Your task to perform on an android device: uninstall "Google Translate" Image 0: 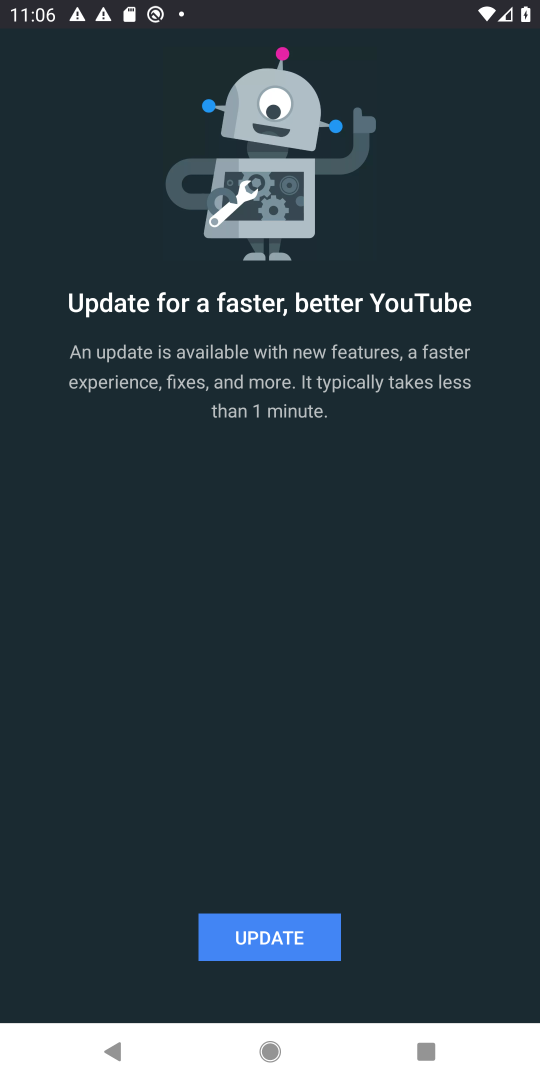
Step 0: press home button
Your task to perform on an android device: uninstall "Google Translate" Image 1: 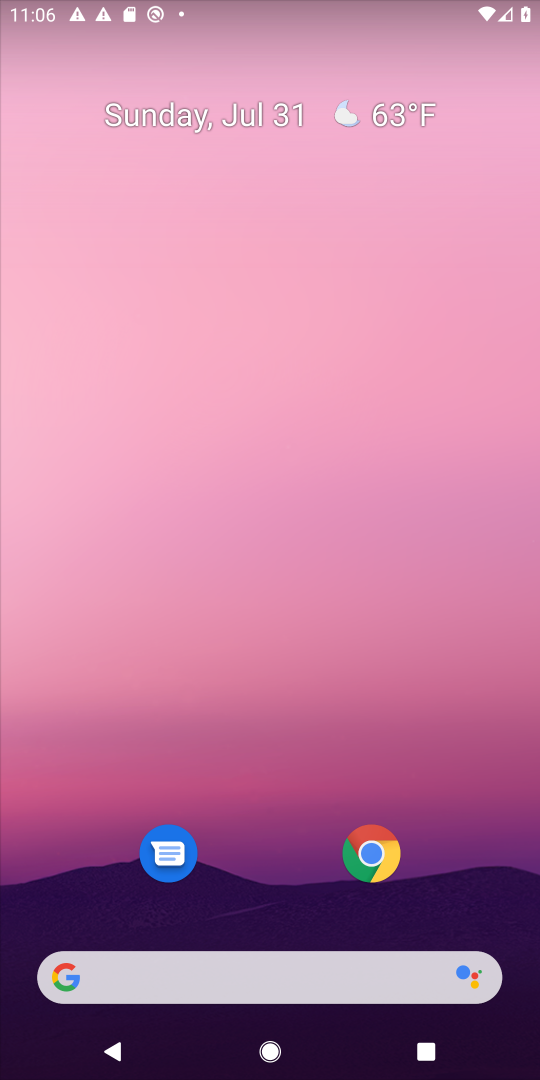
Step 1: drag from (293, 962) to (269, 110)
Your task to perform on an android device: uninstall "Google Translate" Image 2: 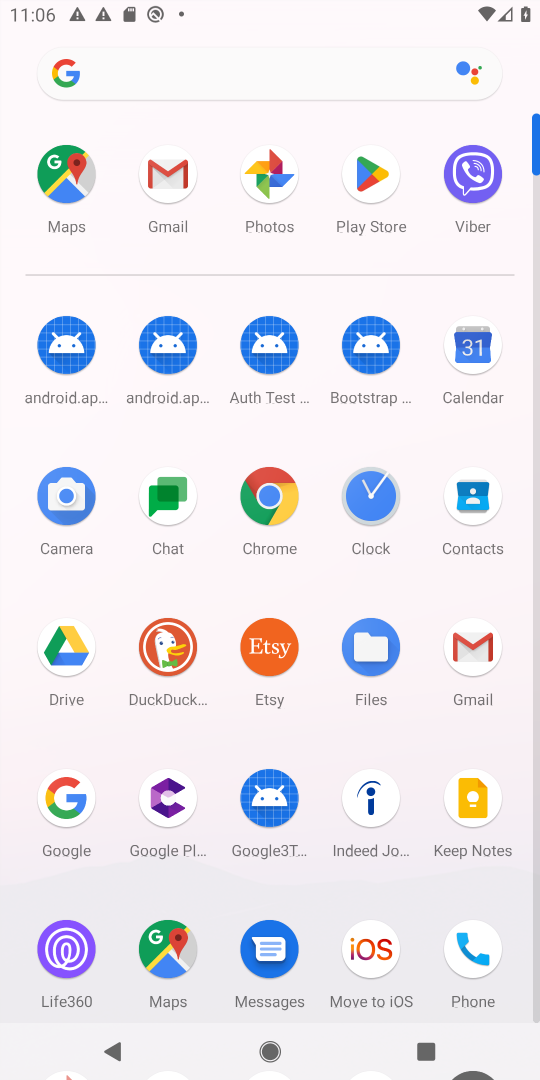
Step 2: click (370, 176)
Your task to perform on an android device: uninstall "Google Translate" Image 3: 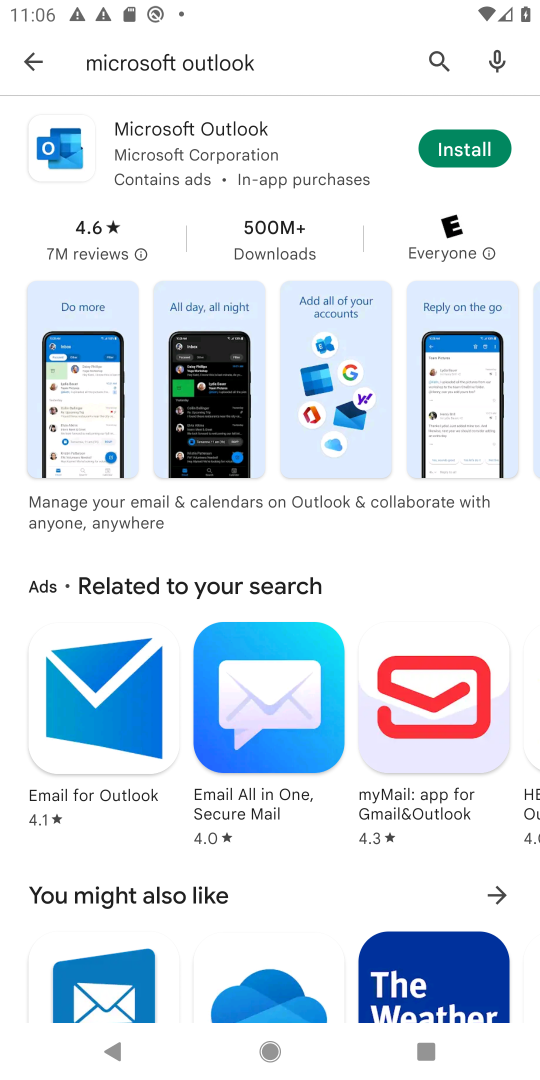
Step 3: click (440, 50)
Your task to perform on an android device: uninstall "Google Translate" Image 4: 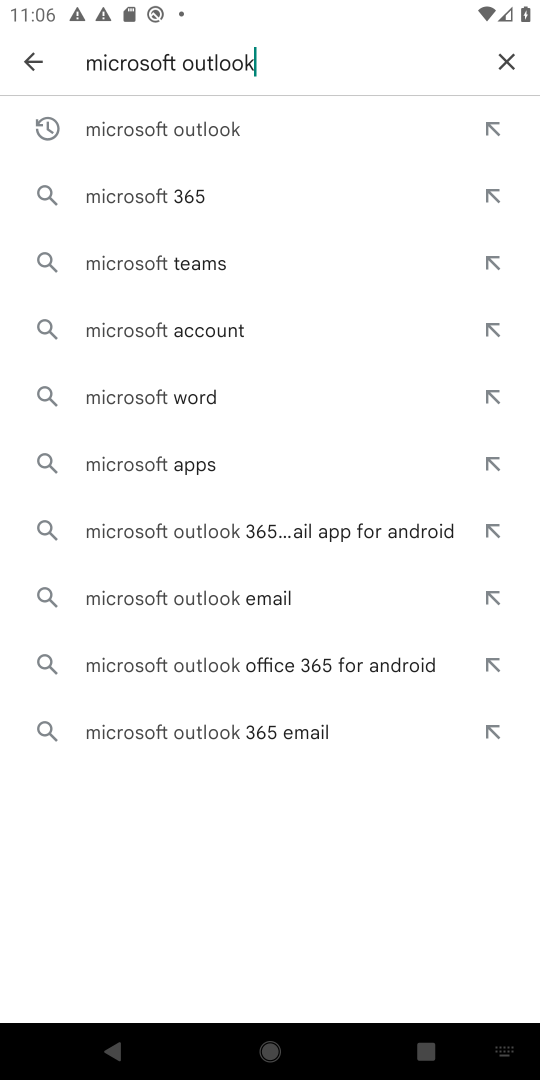
Step 4: click (517, 57)
Your task to perform on an android device: uninstall "Google Translate" Image 5: 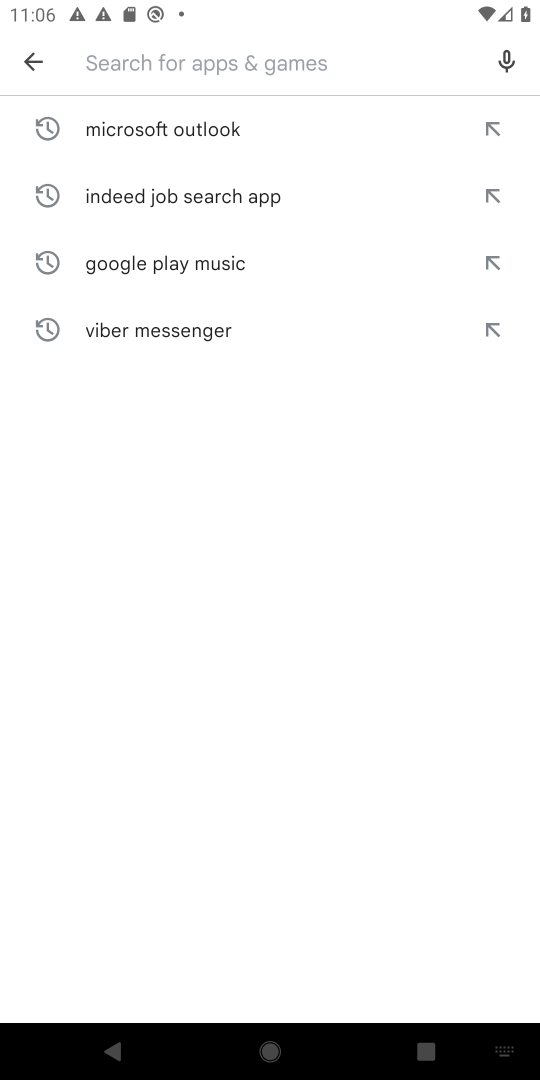
Step 5: type "Google Translate"
Your task to perform on an android device: uninstall "Google Translate" Image 6: 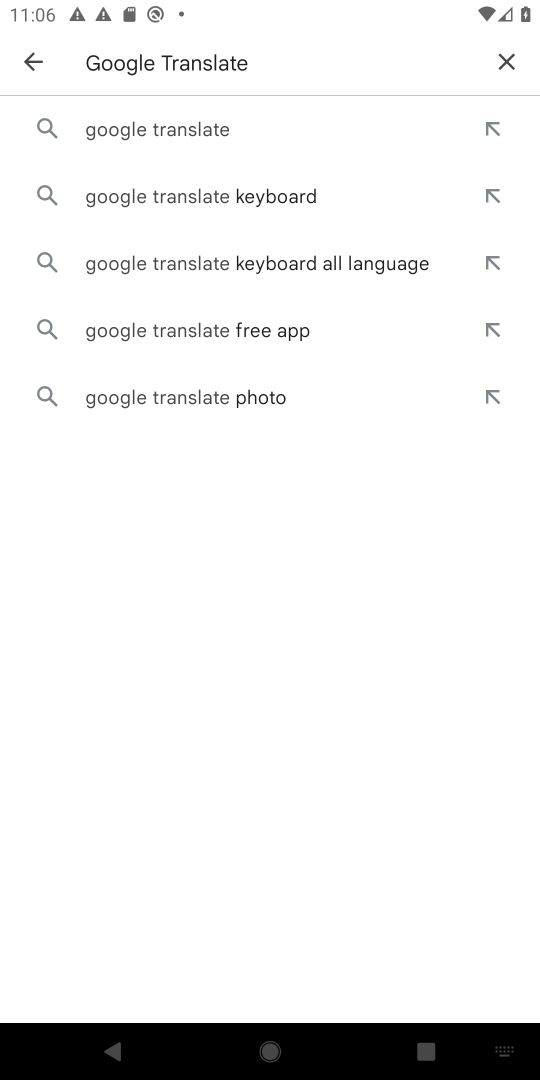
Step 6: click (166, 129)
Your task to perform on an android device: uninstall "Google Translate" Image 7: 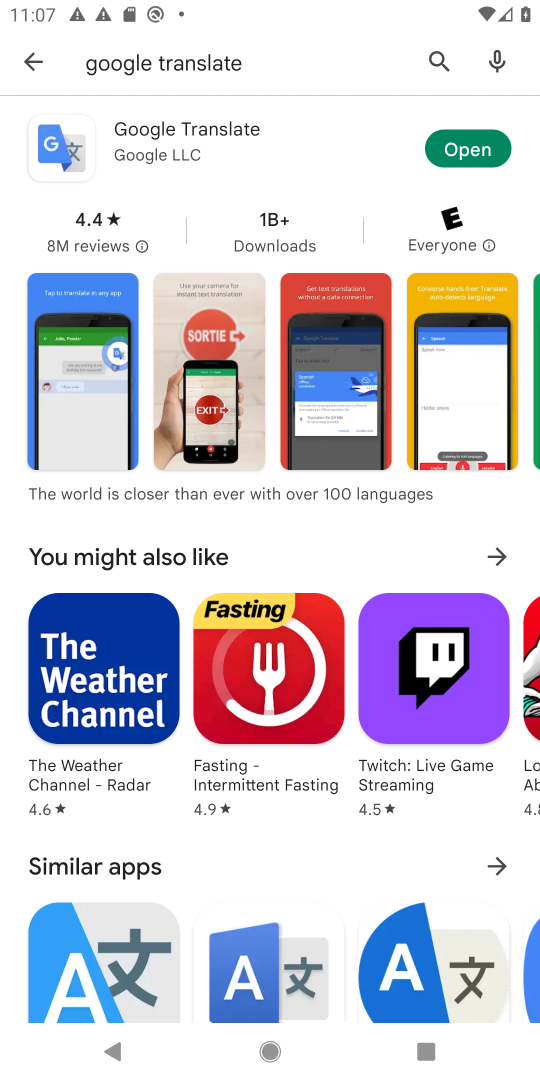
Step 7: click (184, 142)
Your task to perform on an android device: uninstall "Google Translate" Image 8: 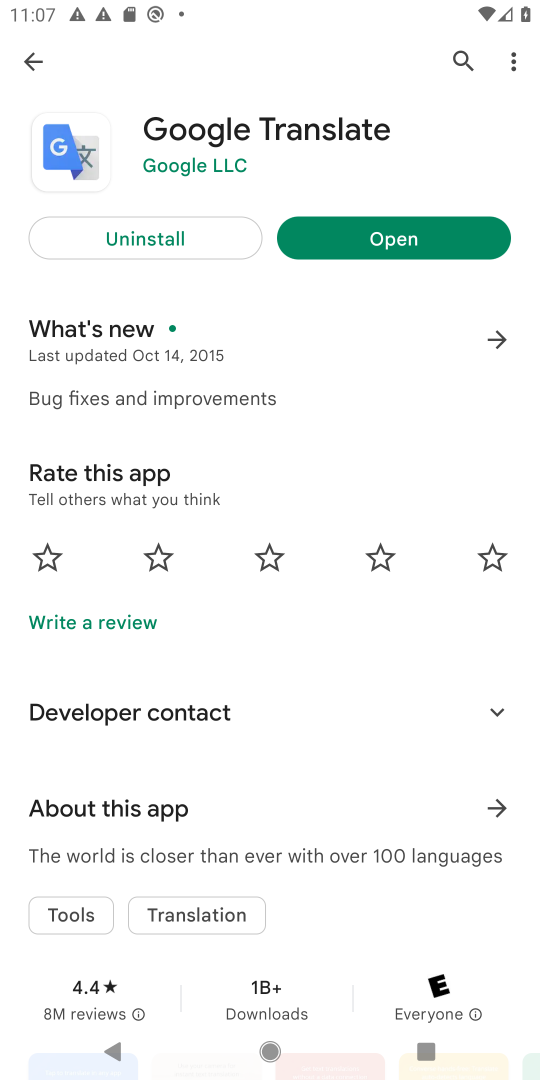
Step 8: click (149, 228)
Your task to perform on an android device: uninstall "Google Translate" Image 9: 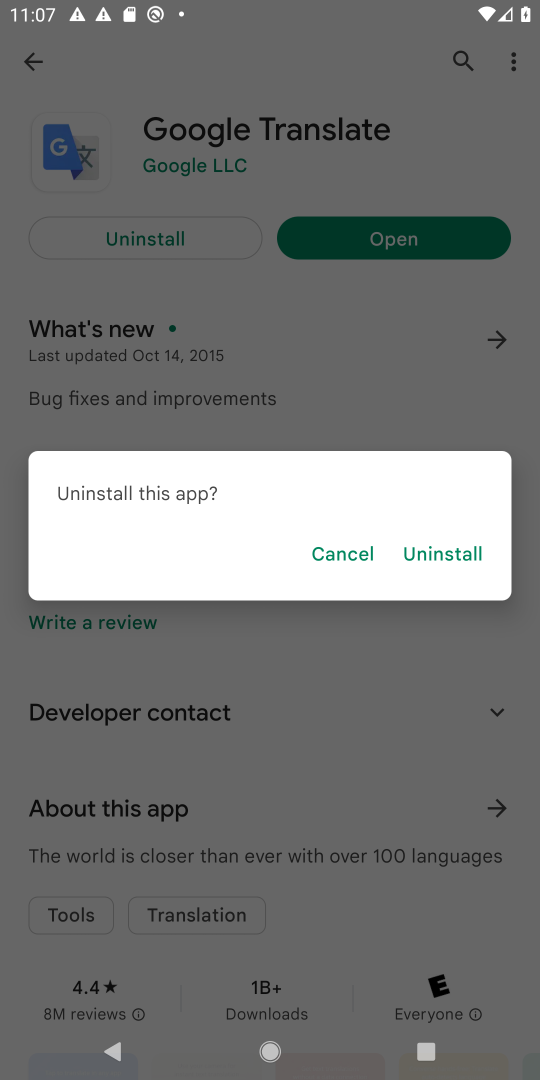
Step 9: click (444, 550)
Your task to perform on an android device: uninstall "Google Translate" Image 10: 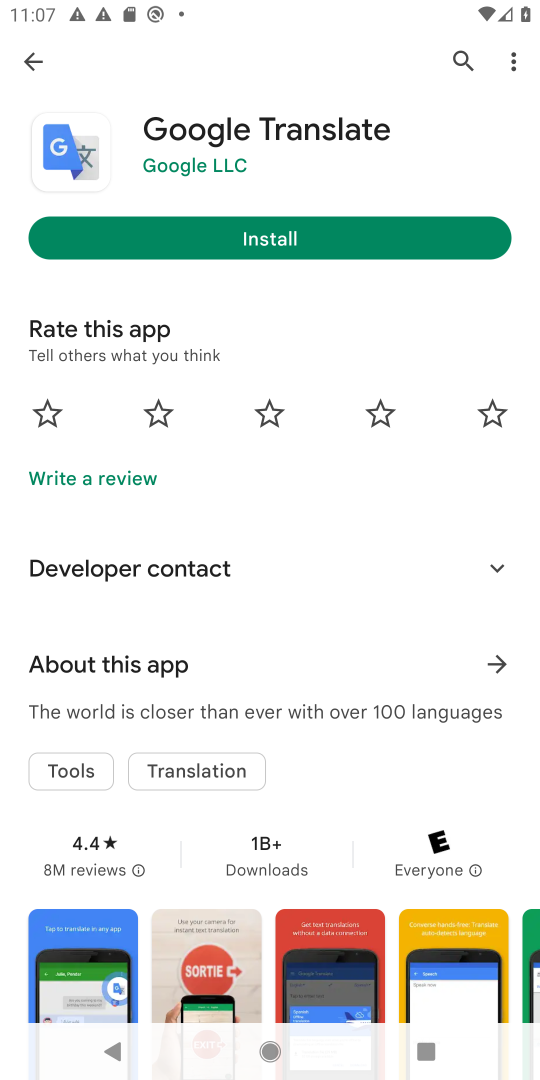
Step 10: task complete